Your task to perform on an android device: add a contact in the contacts app Image 0: 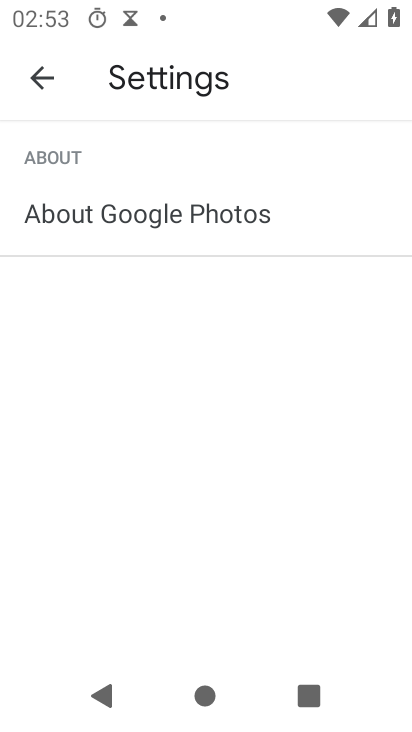
Step 0: press home button
Your task to perform on an android device: add a contact in the contacts app Image 1: 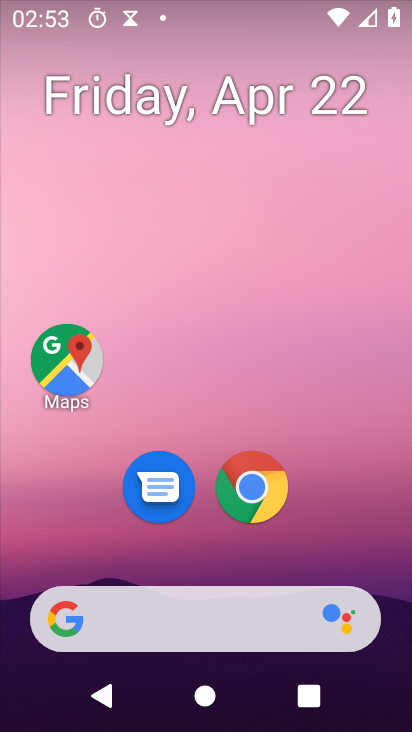
Step 1: drag from (120, 636) to (232, 167)
Your task to perform on an android device: add a contact in the contacts app Image 2: 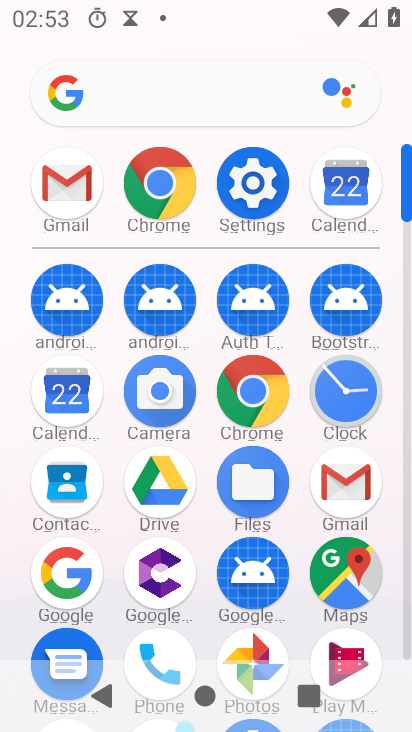
Step 2: click (69, 492)
Your task to perform on an android device: add a contact in the contacts app Image 3: 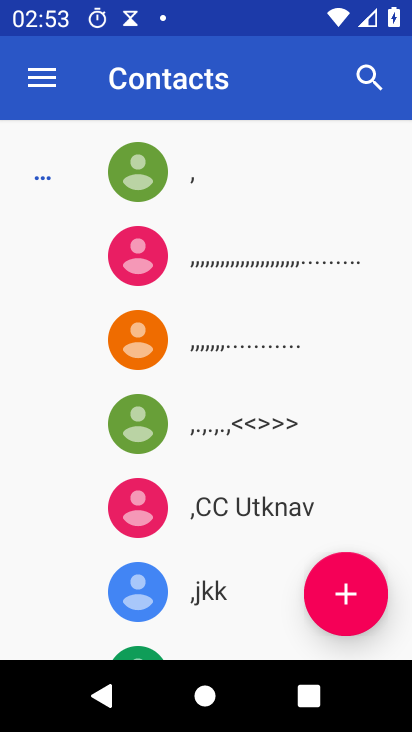
Step 3: click (353, 597)
Your task to perform on an android device: add a contact in the contacts app Image 4: 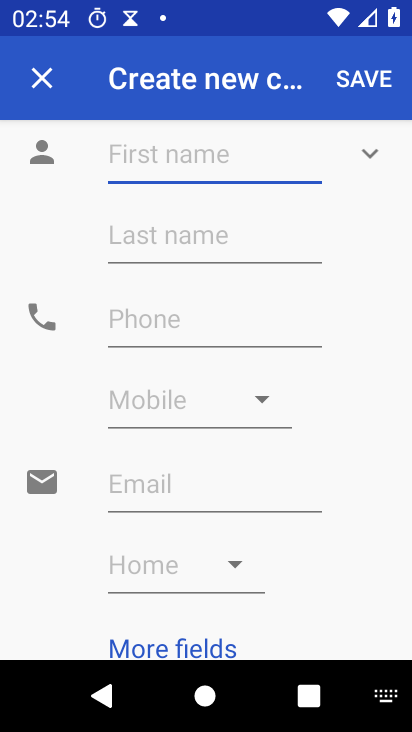
Step 4: type "vurtyfhgjs"
Your task to perform on an android device: add a contact in the contacts app Image 5: 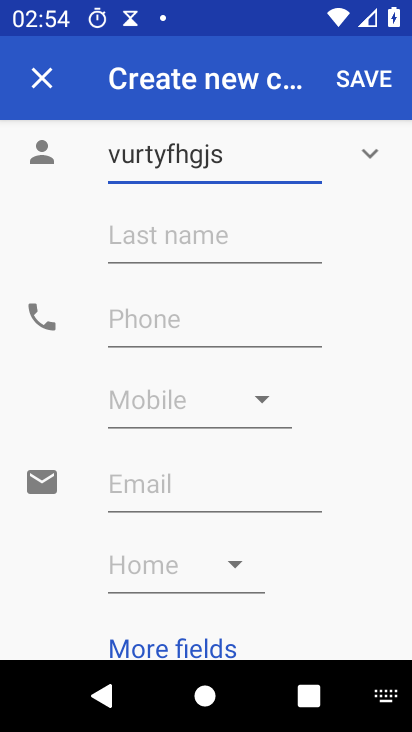
Step 5: click (140, 325)
Your task to perform on an android device: add a contact in the contacts app Image 6: 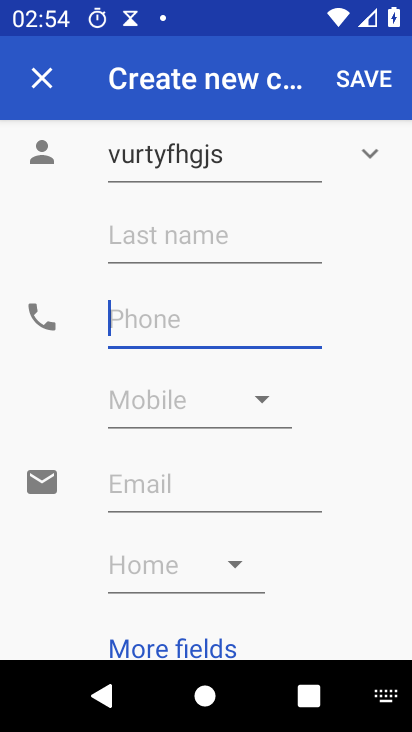
Step 6: type "198465765"
Your task to perform on an android device: add a contact in the contacts app Image 7: 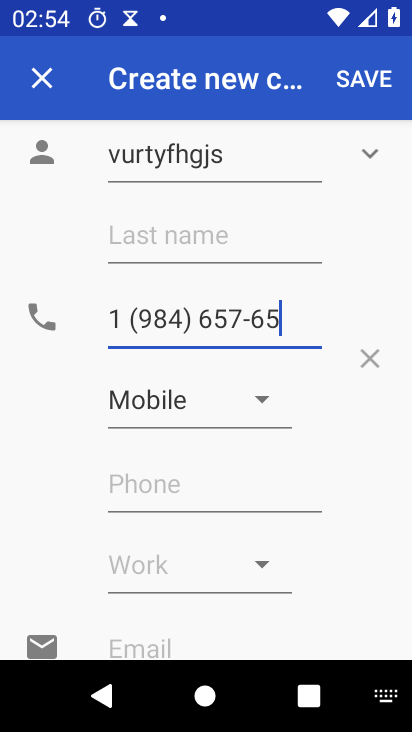
Step 7: click (137, 317)
Your task to perform on an android device: add a contact in the contacts app Image 8: 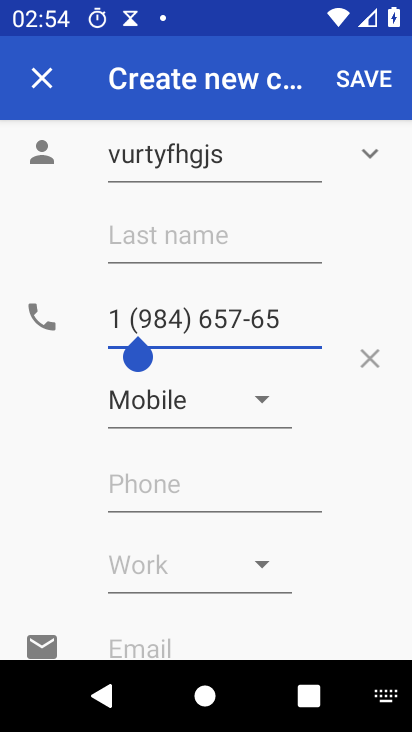
Step 8: click (375, 81)
Your task to perform on an android device: add a contact in the contacts app Image 9: 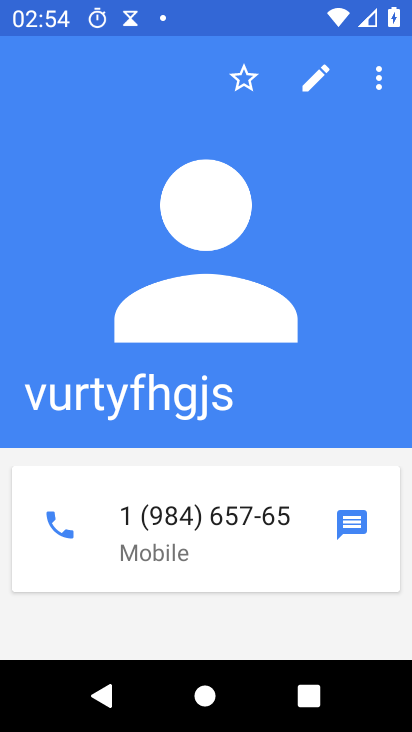
Step 9: task complete